Your task to perform on an android device: What's the weather going to be this weekend? Image 0: 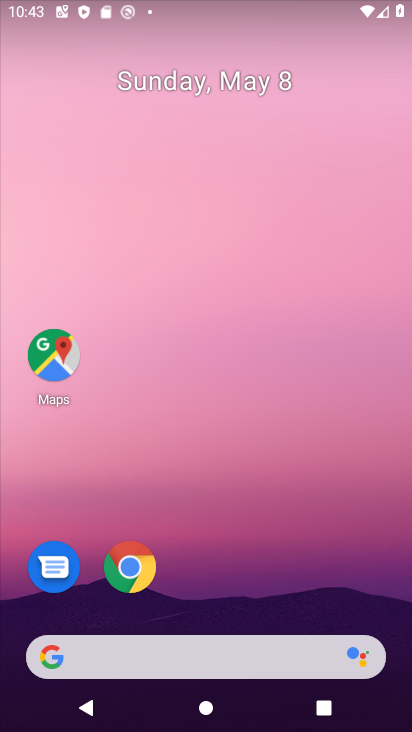
Step 0: drag from (27, 158) to (352, 167)
Your task to perform on an android device: What's the weather going to be this weekend? Image 1: 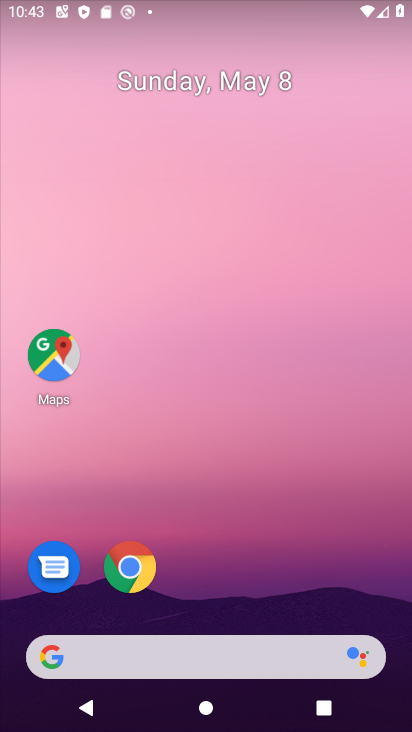
Step 1: drag from (10, 191) to (394, 225)
Your task to perform on an android device: What's the weather going to be this weekend? Image 2: 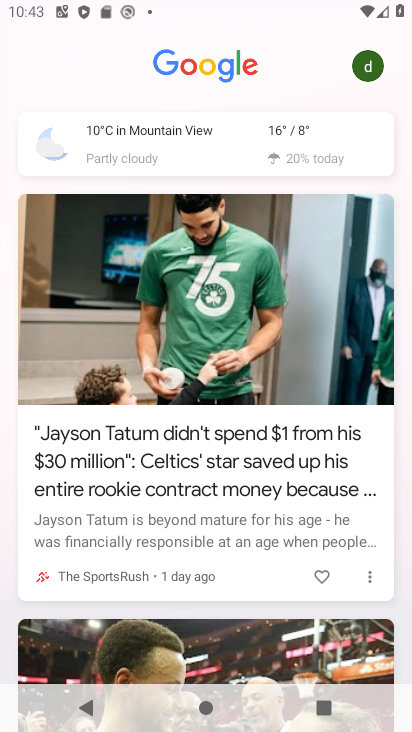
Step 2: click (284, 131)
Your task to perform on an android device: What's the weather going to be this weekend? Image 3: 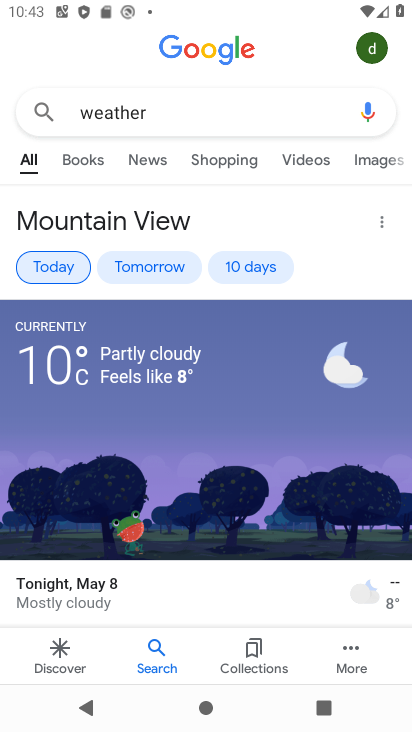
Step 3: click (246, 264)
Your task to perform on an android device: What's the weather going to be this weekend? Image 4: 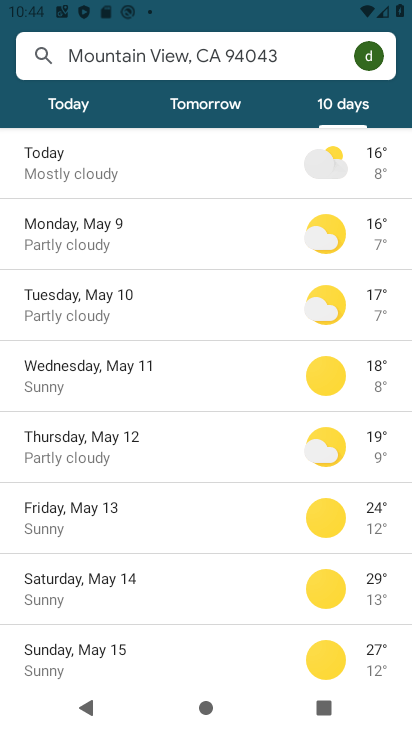
Step 4: task complete